Your task to perform on an android device: Toggle the flashlight Image 0: 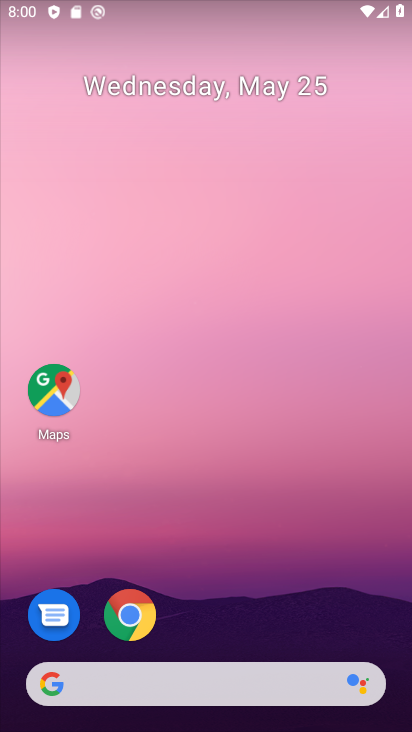
Step 0: drag from (317, 11) to (352, 713)
Your task to perform on an android device: Toggle the flashlight Image 1: 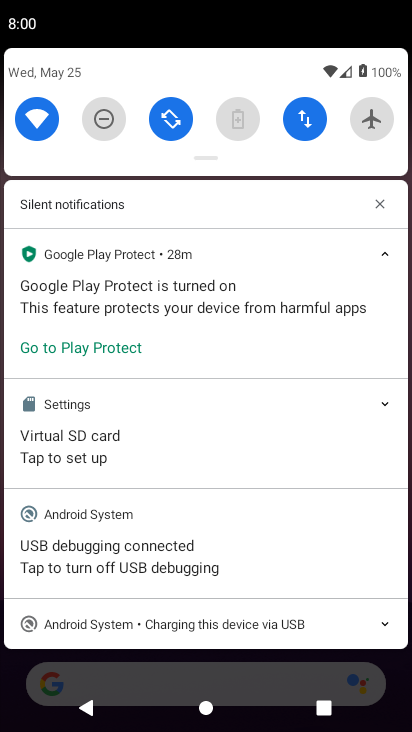
Step 1: task complete